Your task to perform on an android device: Go to notification settings Image 0: 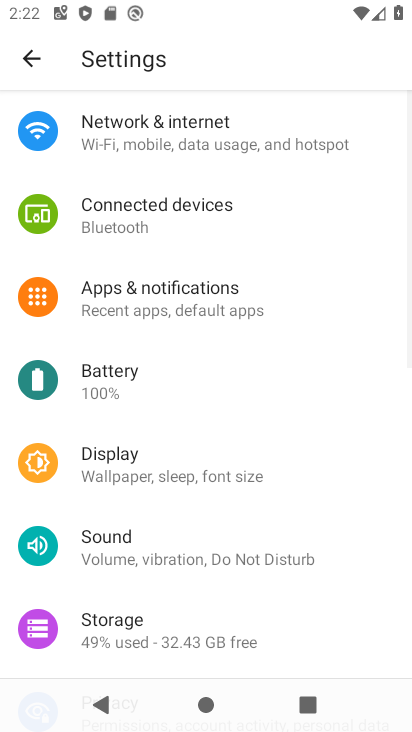
Step 0: click (233, 140)
Your task to perform on an android device: Go to notification settings Image 1: 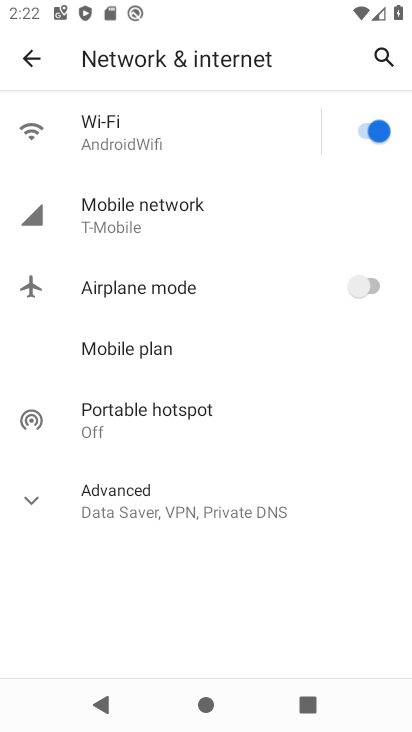
Step 1: click (36, 57)
Your task to perform on an android device: Go to notification settings Image 2: 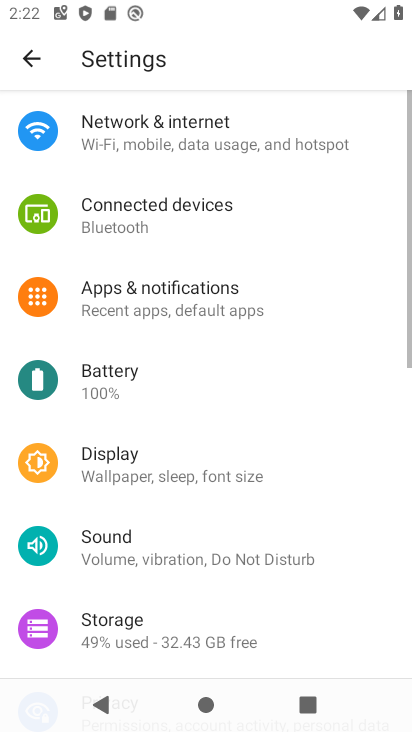
Step 2: click (155, 318)
Your task to perform on an android device: Go to notification settings Image 3: 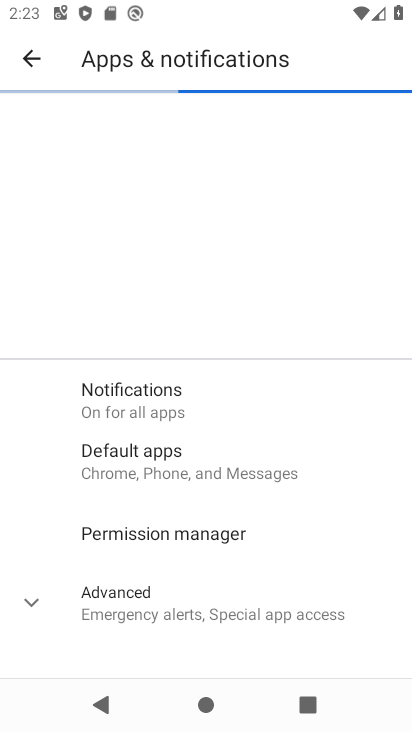
Step 3: task complete